Your task to perform on an android device: delete browsing data in the chrome app Image 0: 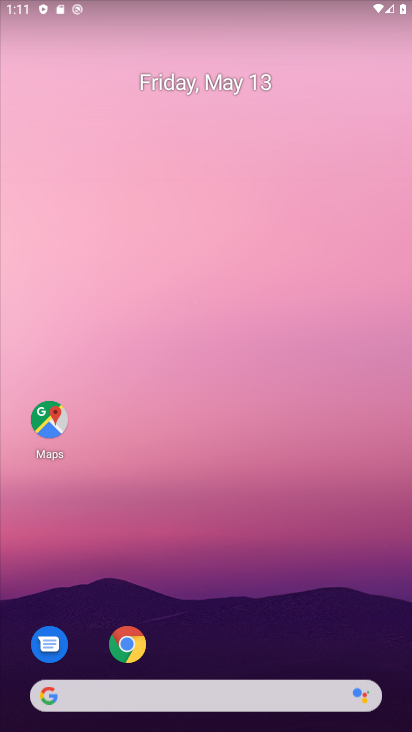
Step 0: click (133, 643)
Your task to perform on an android device: delete browsing data in the chrome app Image 1: 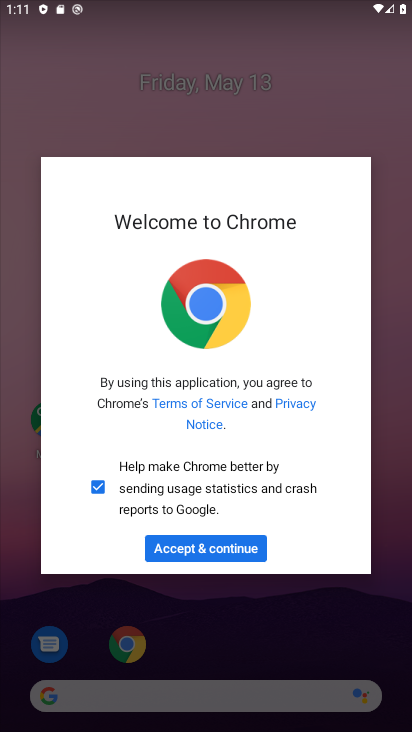
Step 1: click (218, 554)
Your task to perform on an android device: delete browsing data in the chrome app Image 2: 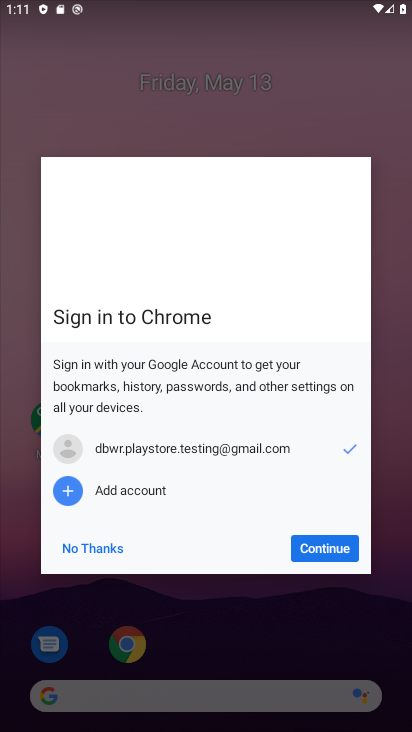
Step 2: click (345, 555)
Your task to perform on an android device: delete browsing data in the chrome app Image 3: 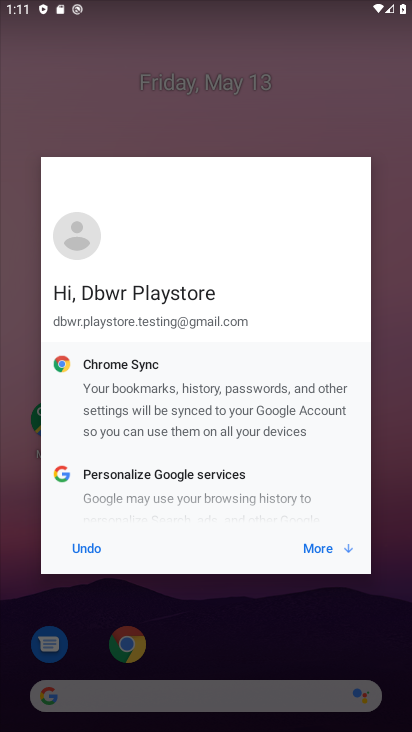
Step 3: click (321, 548)
Your task to perform on an android device: delete browsing data in the chrome app Image 4: 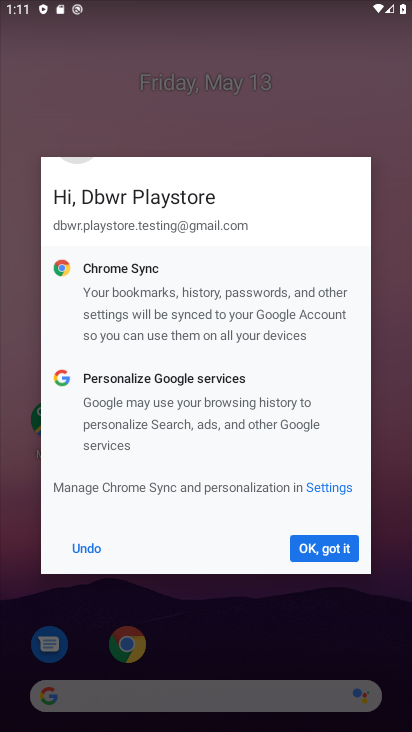
Step 4: click (317, 545)
Your task to perform on an android device: delete browsing data in the chrome app Image 5: 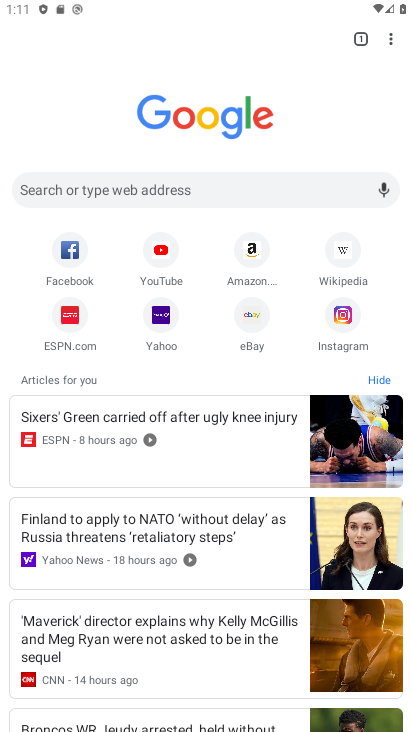
Step 5: task complete